Your task to perform on an android device: change text size in settings app Image 0: 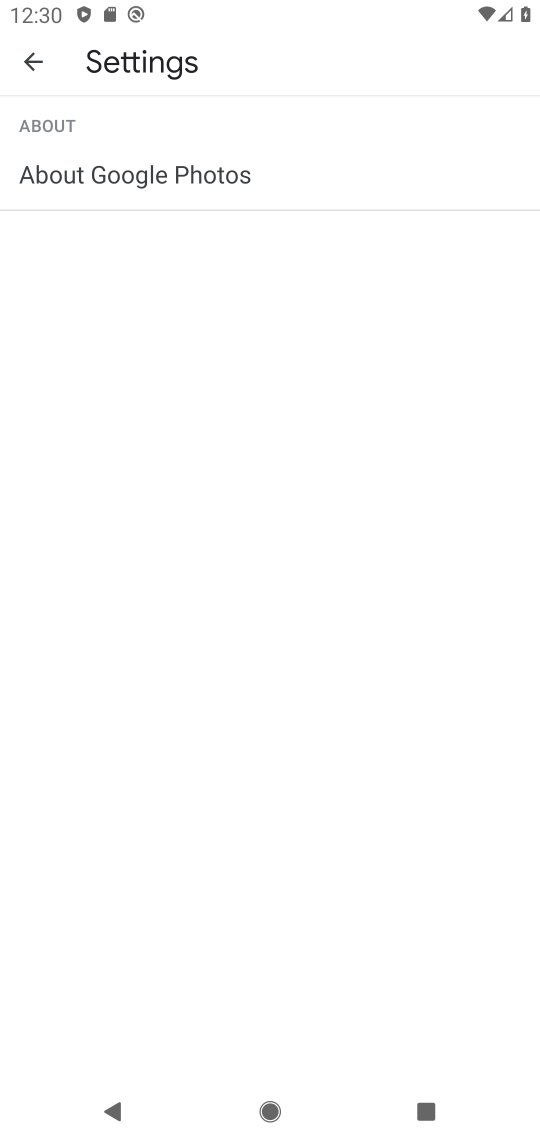
Step 0: press home button
Your task to perform on an android device: change text size in settings app Image 1: 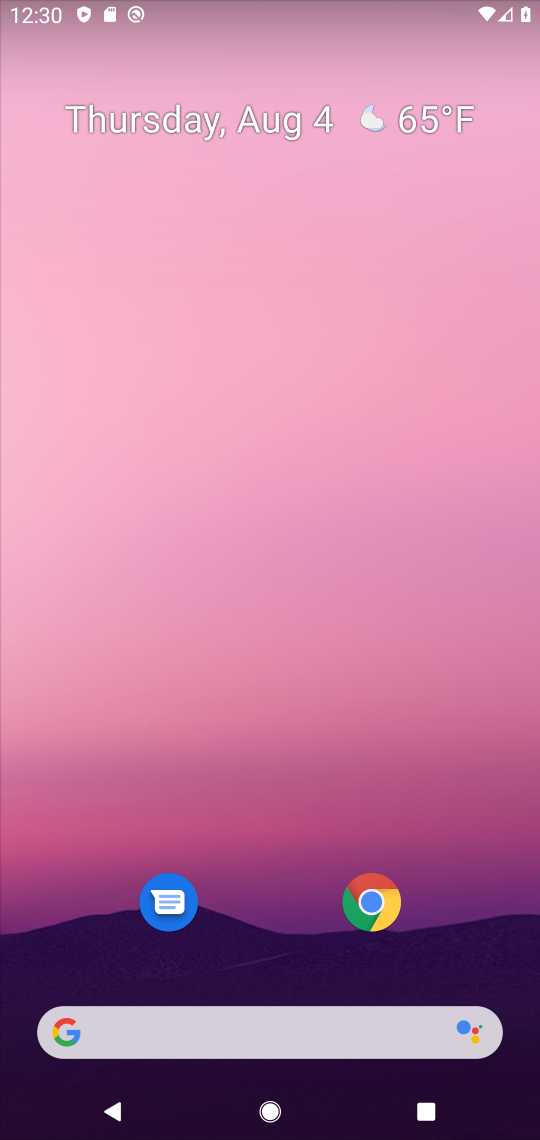
Step 1: drag from (474, 944) to (434, 225)
Your task to perform on an android device: change text size in settings app Image 2: 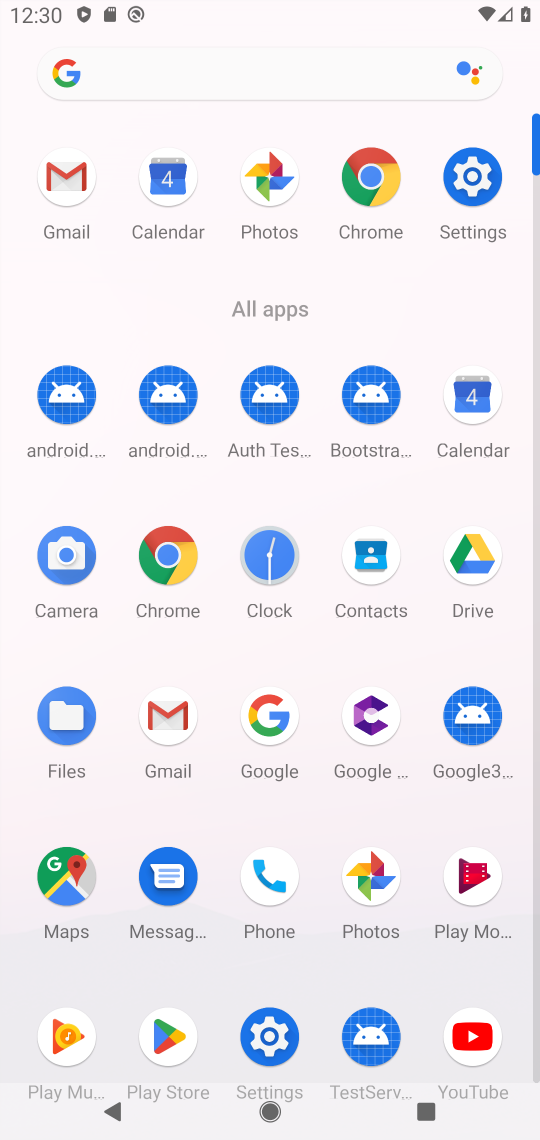
Step 2: click (273, 1036)
Your task to perform on an android device: change text size in settings app Image 3: 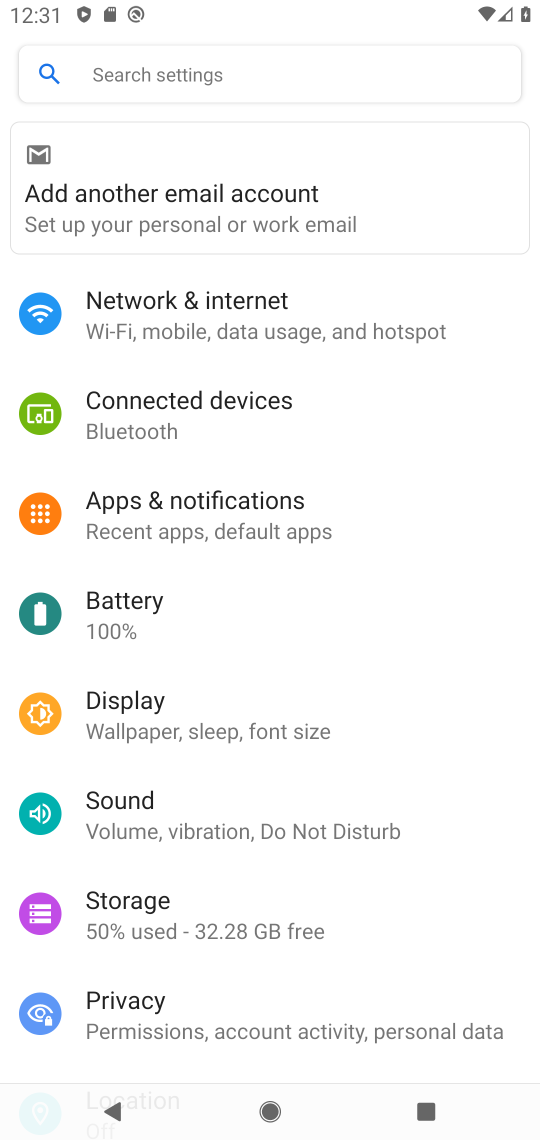
Step 3: click (129, 716)
Your task to perform on an android device: change text size in settings app Image 4: 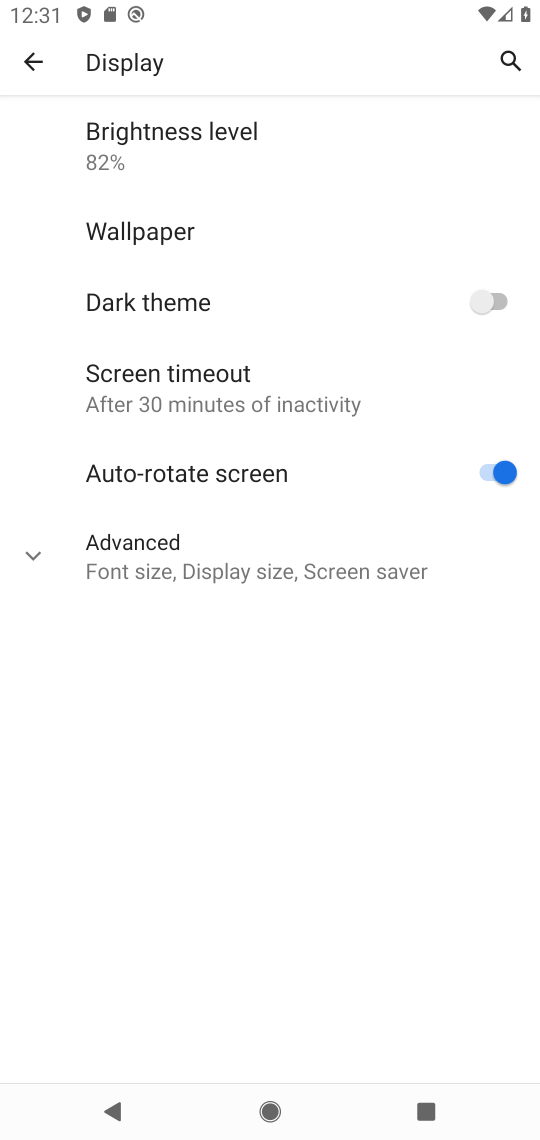
Step 4: click (34, 550)
Your task to perform on an android device: change text size in settings app Image 5: 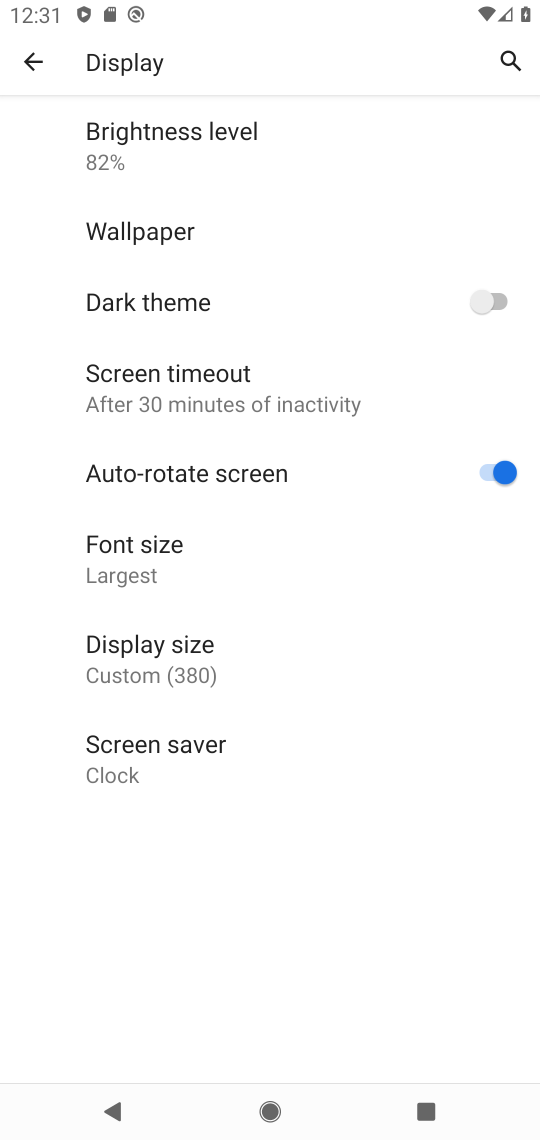
Step 5: click (122, 558)
Your task to perform on an android device: change text size in settings app Image 6: 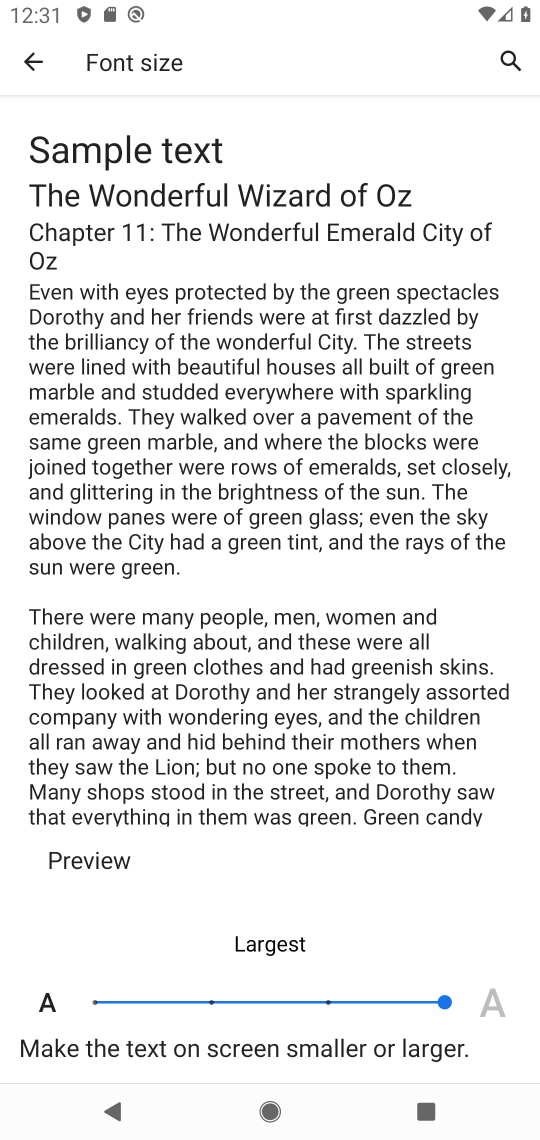
Step 6: click (329, 1005)
Your task to perform on an android device: change text size in settings app Image 7: 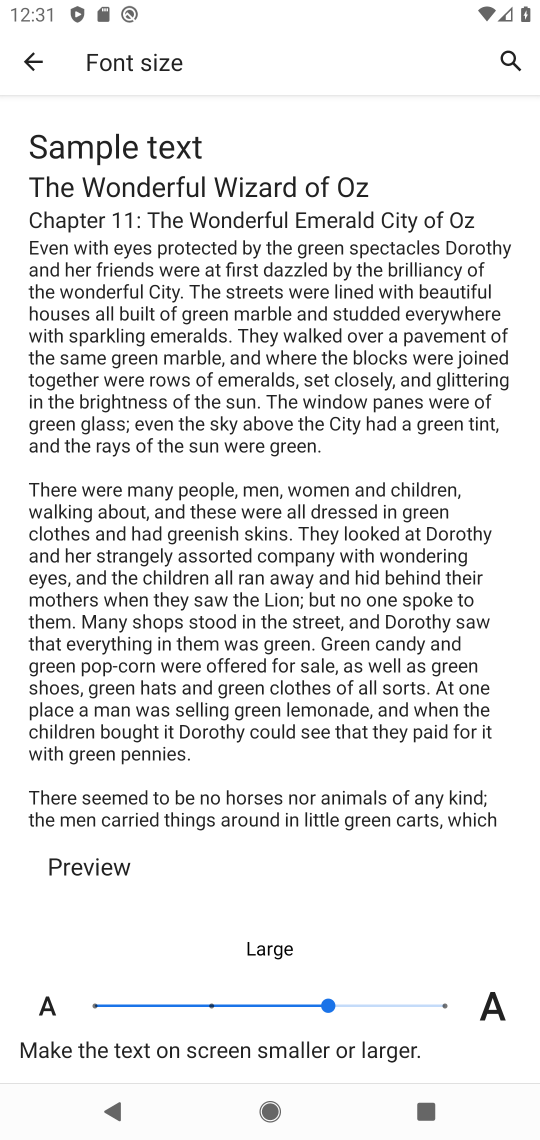
Step 7: task complete